Your task to perform on an android device: toggle translation in the chrome app Image 0: 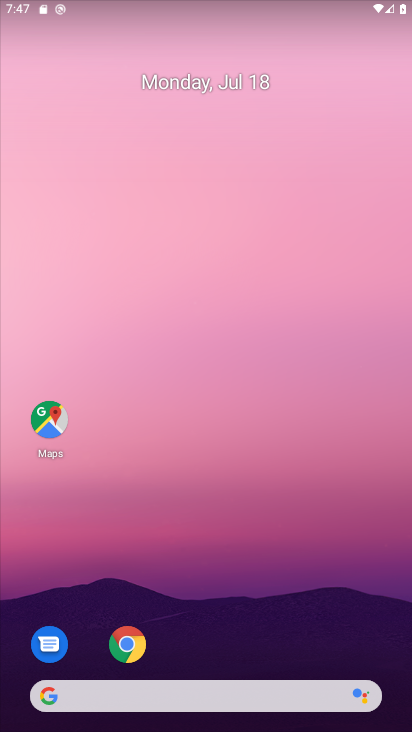
Step 0: click (126, 635)
Your task to perform on an android device: toggle translation in the chrome app Image 1: 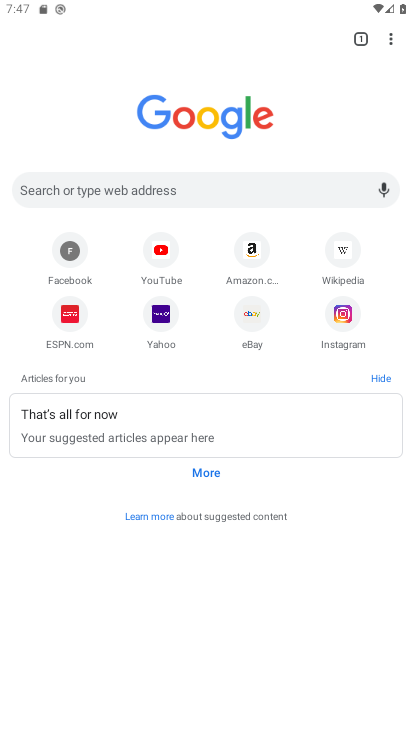
Step 1: click (385, 49)
Your task to perform on an android device: toggle translation in the chrome app Image 2: 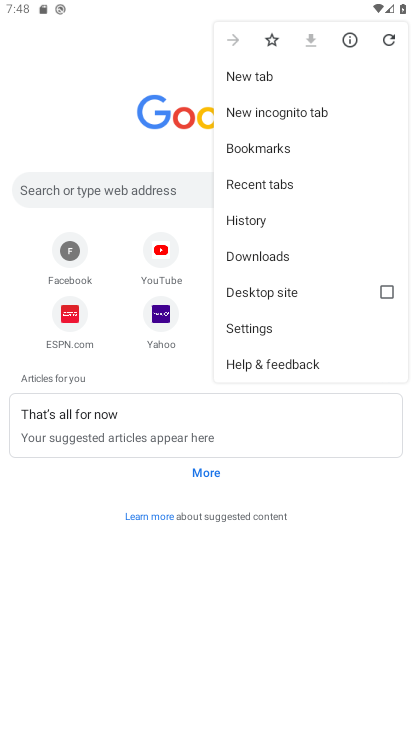
Step 2: click (260, 326)
Your task to perform on an android device: toggle translation in the chrome app Image 3: 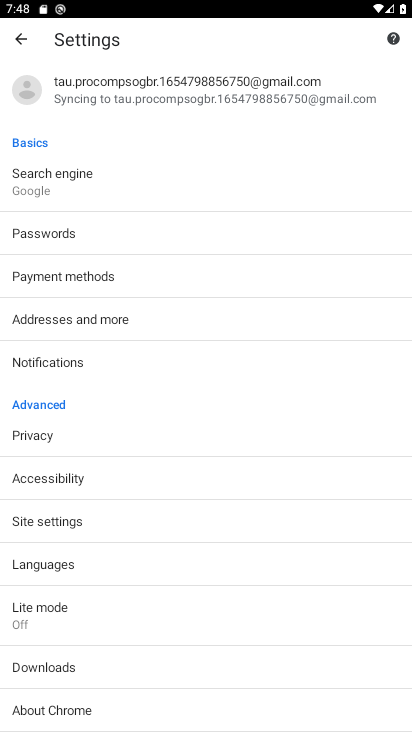
Step 3: click (198, 559)
Your task to perform on an android device: toggle translation in the chrome app Image 4: 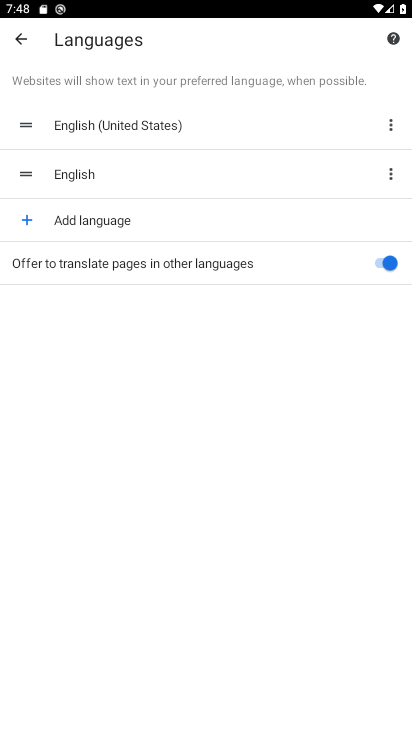
Step 4: click (381, 260)
Your task to perform on an android device: toggle translation in the chrome app Image 5: 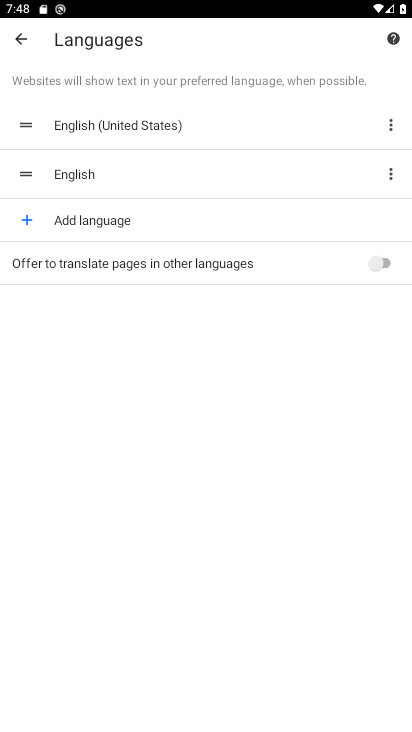
Step 5: task complete